Your task to perform on an android device: Open maps Image 0: 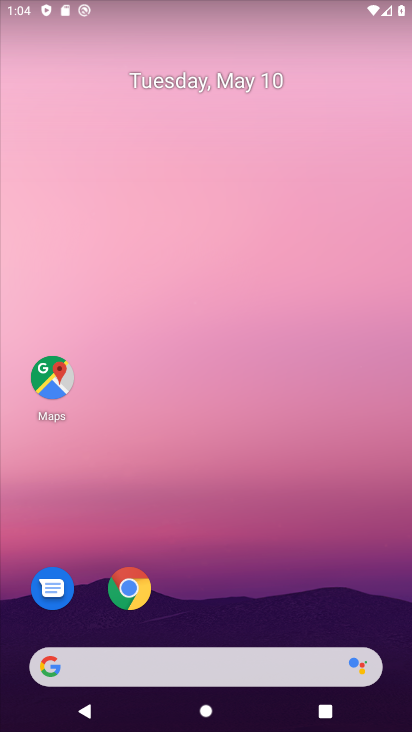
Step 0: drag from (293, 678) to (321, 128)
Your task to perform on an android device: Open maps Image 1: 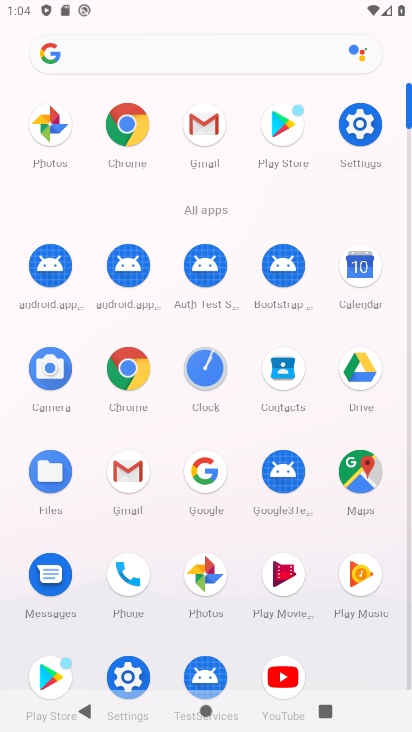
Step 1: click (361, 458)
Your task to perform on an android device: Open maps Image 2: 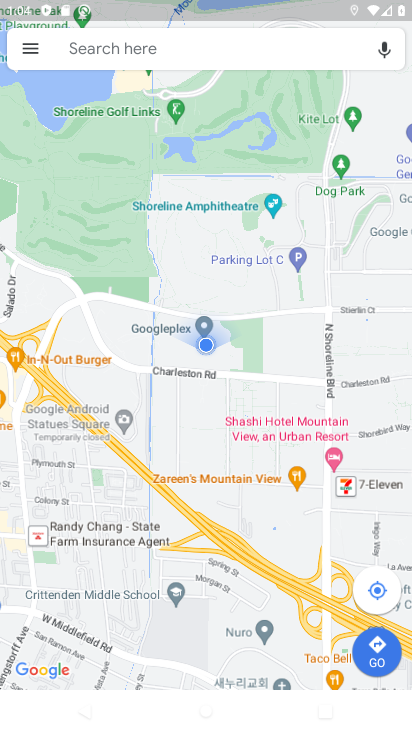
Step 2: task complete